Your task to perform on an android device: check storage Image 0: 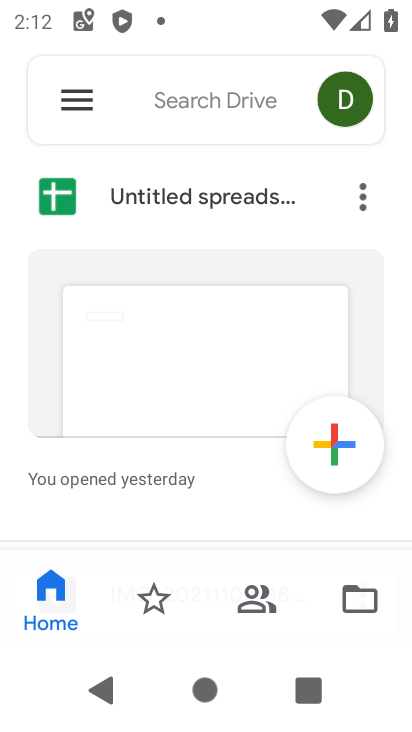
Step 0: press home button
Your task to perform on an android device: check storage Image 1: 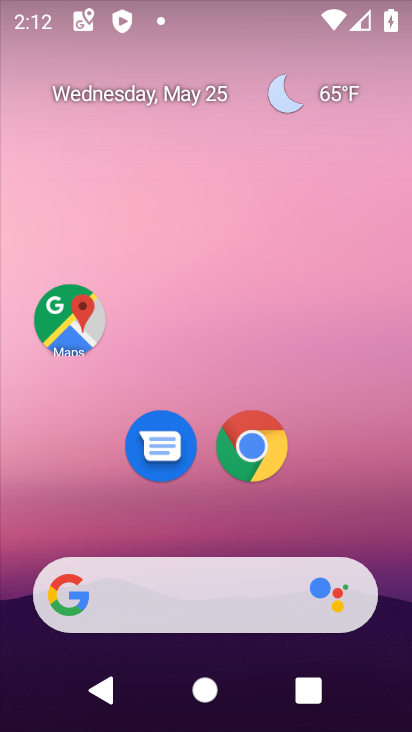
Step 1: click (305, 138)
Your task to perform on an android device: check storage Image 2: 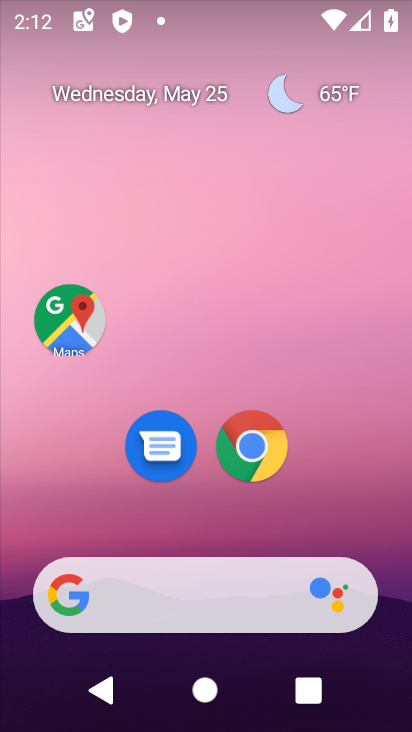
Step 2: drag from (187, 588) to (212, 246)
Your task to perform on an android device: check storage Image 3: 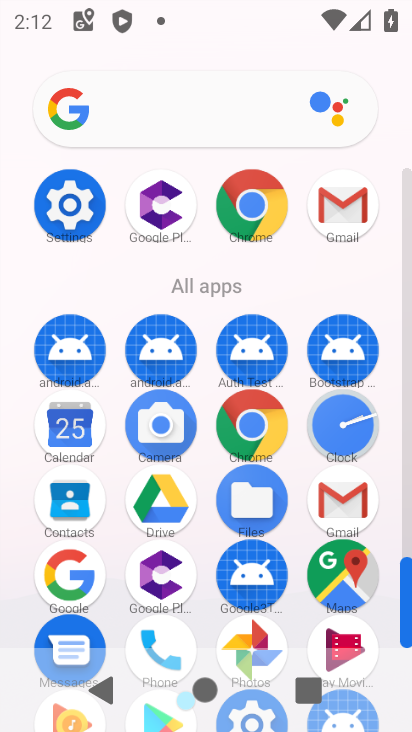
Step 3: click (79, 195)
Your task to perform on an android device: check storage Image 4: 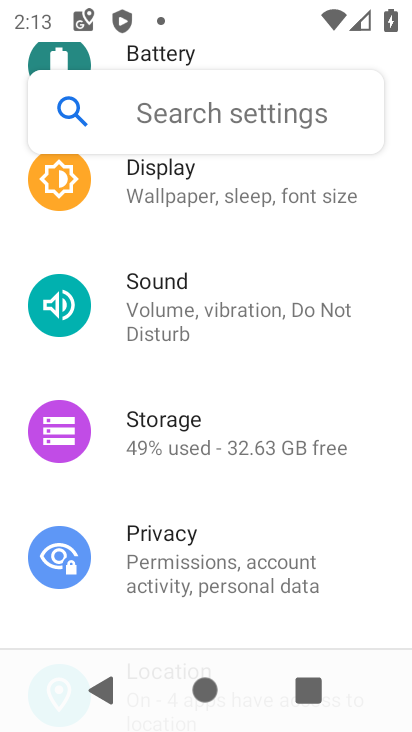
Step 4: click (162, 438)
Your task to perform on an android device: check storage Image 5: 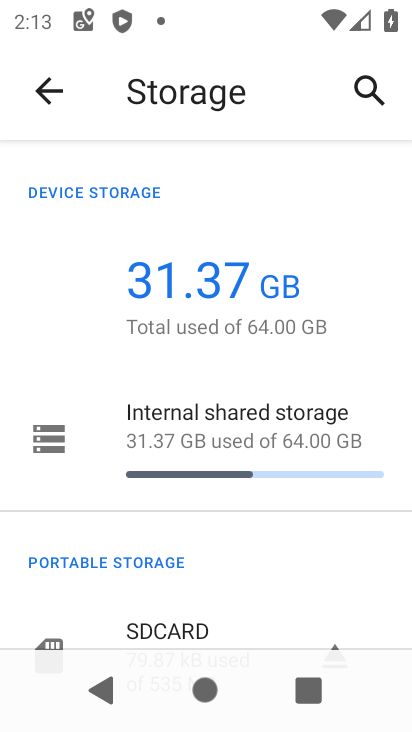
Step 5: task complete